Your task to perform on an android device: open a bookmark in the chrome app Image 0: 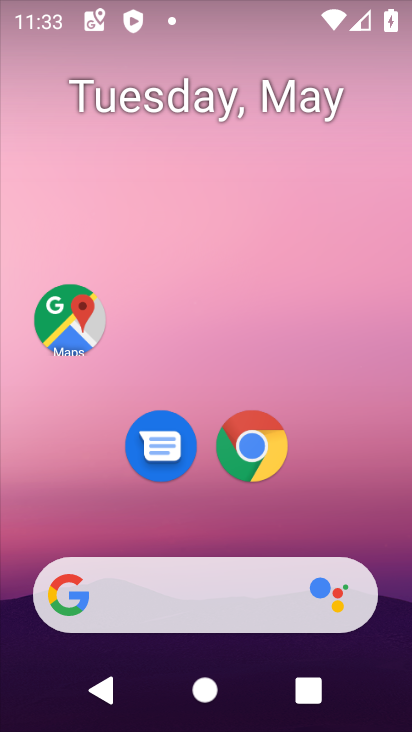
Step 0: click (256, 440)
Your task to perform on an android device: open a bookmark in the chrome app Image 1: 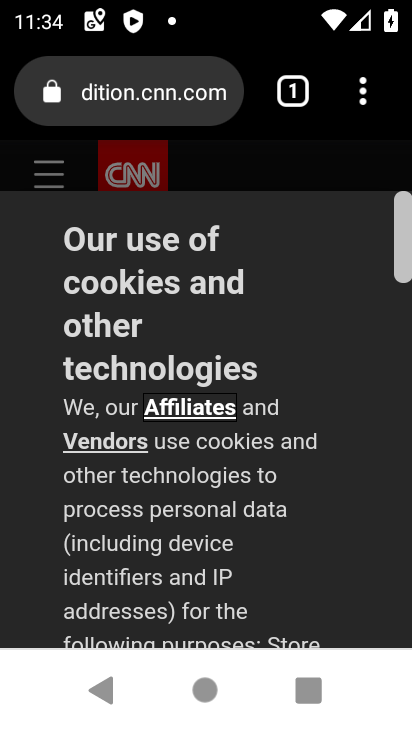
Step 1: click (364, 103)
Your task to perform on an android device: open a bookmark in the chrome app Image 2: 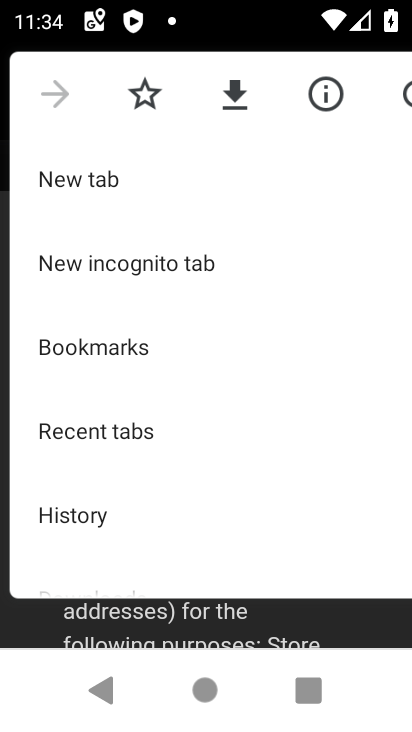
Step 2: click (99, 349)
Your task to perform on an android device: open a bookmark in the chrome app Image 3: 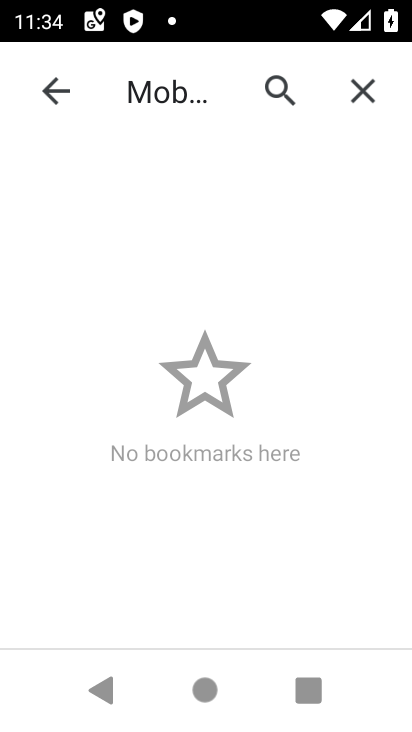
Step 3: task complete